Your task to perform on an android device: turn on priority inbox in the gmail app Image 0: 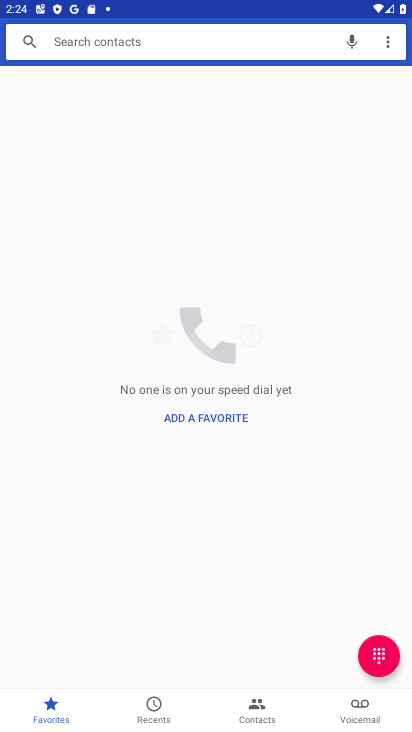
Step 0: press back button
Your task to perform on an android device: turn on priority inbox in the gmail app Image 1: 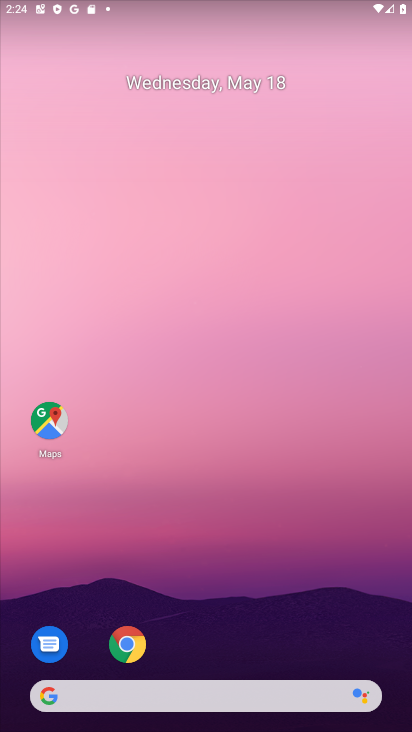
Step 1: drag from (262, 627) to (156, 60)
Your task to perform on an android device: turn on priority inbox in the gmail app Image 2: 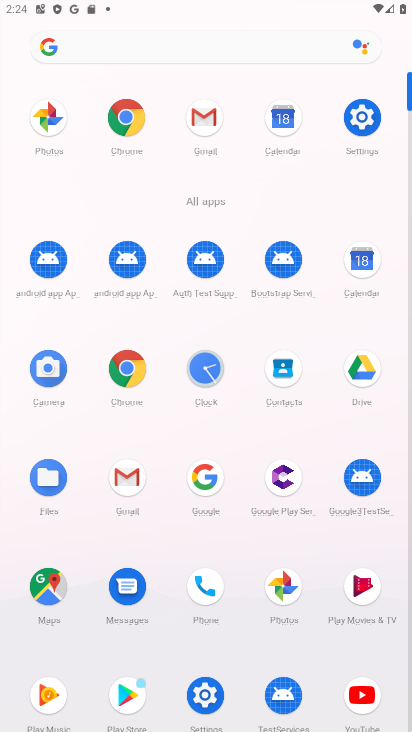
Step 2: click (202, 119)
Your task to perform on an android device: turn on priority inbox in the gmail app Image 3: 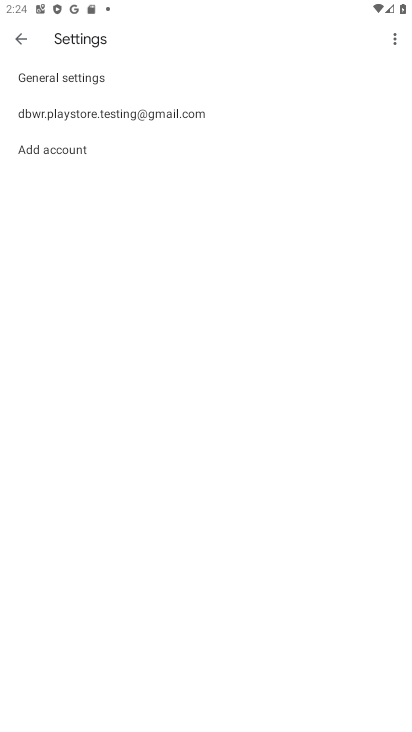
Step 3: click (202, 119)
Your task to perform on an android device: turn on priority inbox in the gmail app Image 4: 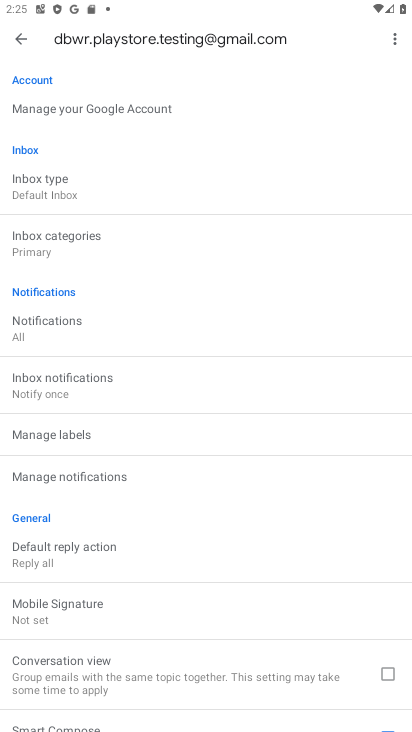
Step 4: click (64, 184)
Your task to perform on an android device: turn on priority inbox in the gmail app Image 5: 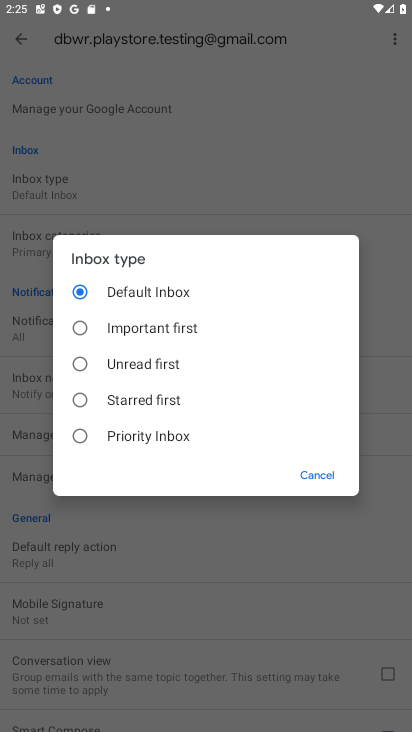
Step 5: click (148, 432)
Your task to perform on an android device: turn on priority inbox in the gmail app Image 6: 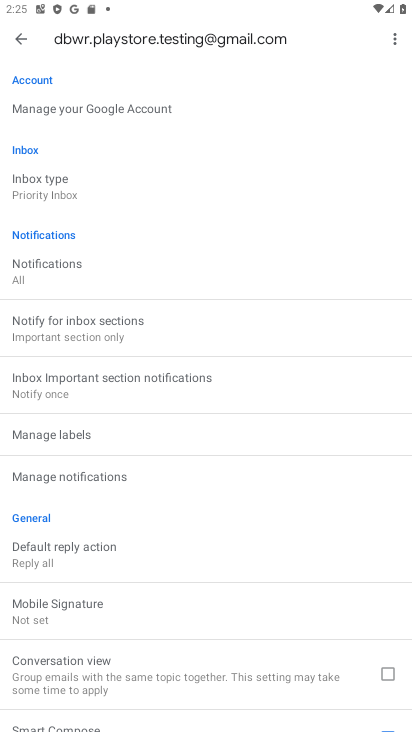
Step 6: task complete